Your task to perform on an android device: open a bookmark in the chrome app Image 0: 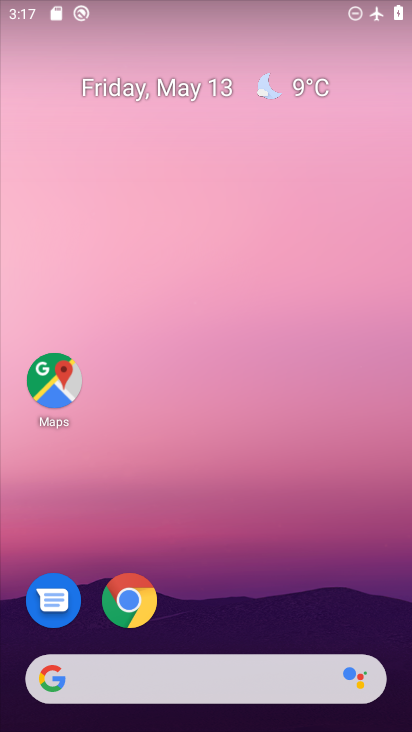
Step 0: click (138, 588)
Your task to perform on an android device: open a bookmark in the chrome app Image 1: 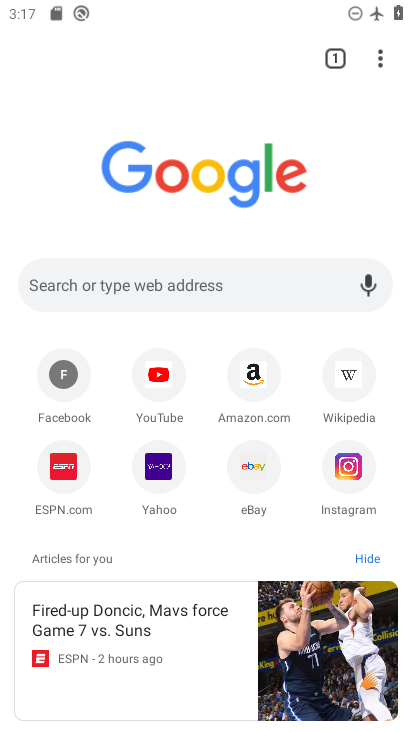
Step 1: click (381, 55)
Your task to perform on an android device: open a bookmark in the chrome app Image 2: 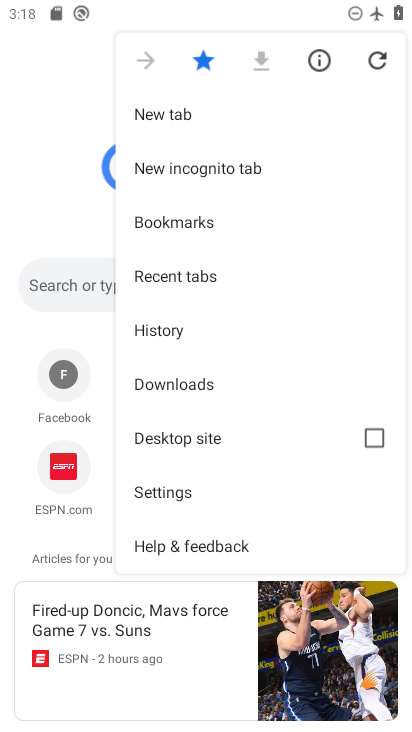
Step 2: click (182, 499)
Your task to perform on an android device: open a bookmark in the chrome app Image 3: 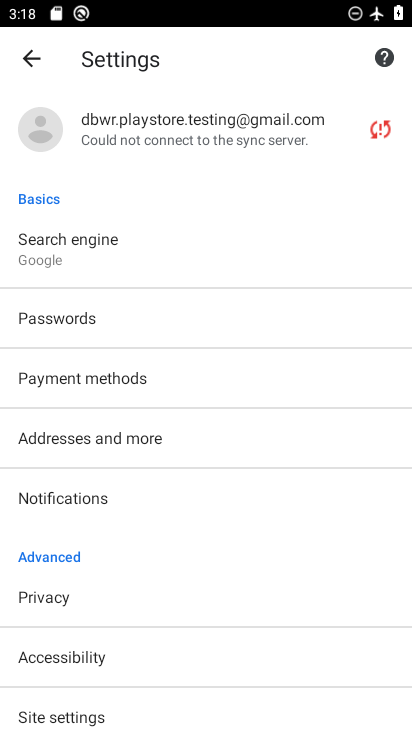
Step 3: click (22, 56)
Your task to perform on an android device: open a bookmark in the chrome app Image 4: 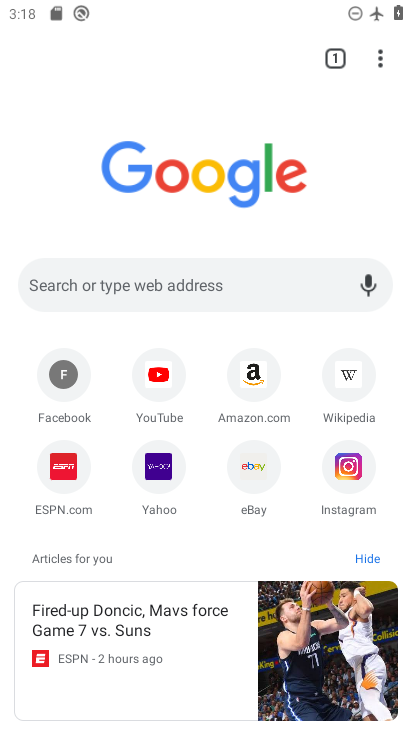
Step 4: click (390, 47)
Your task to perform on an android device: open a bookmark in the chrome app Image 5: 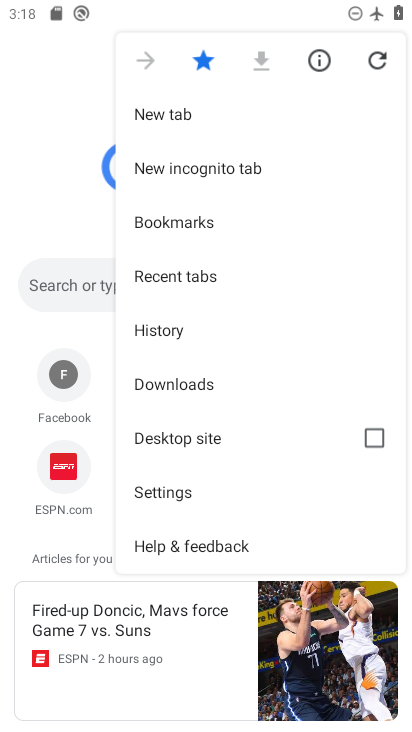
Step 5: click (159, 214)
Your task to perform on an android device: open a bookmark in the chrome app Image 6: 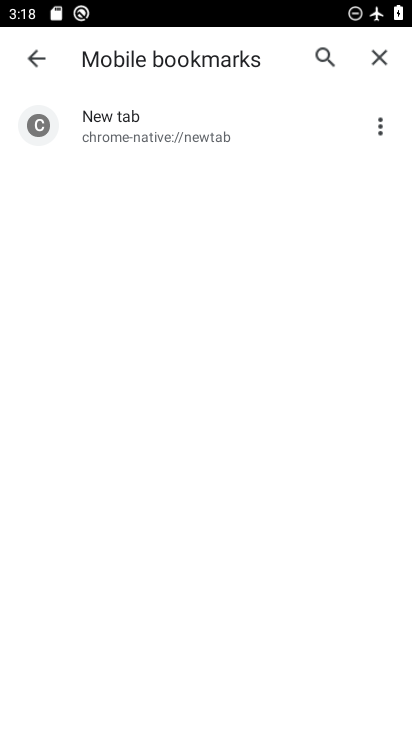
Step 6: task complete